Your task to perform on an android device: turn off translation in the chrome app Image 0: 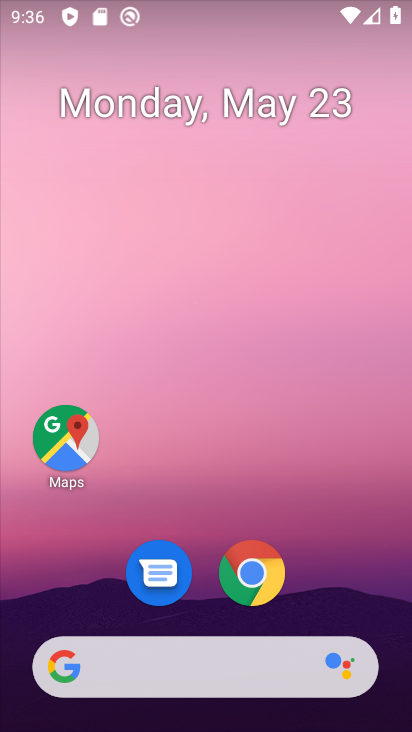
Step 0: click (270, 574)
Your task to perform on an android device: turn off translation in the chrome app Image 1: 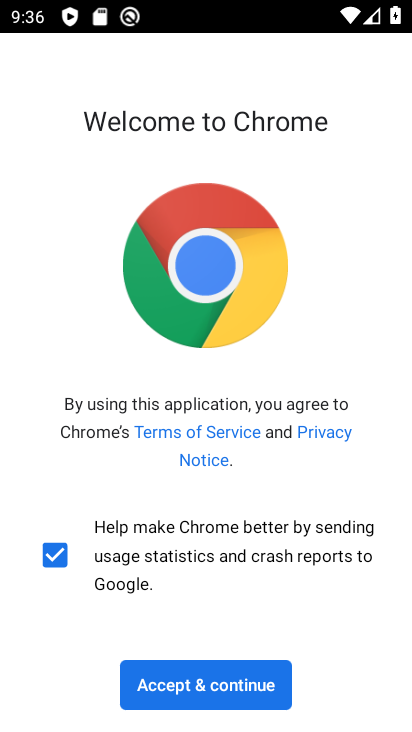
Step 1: click (221, 688)
Your task to perform on an android device: turn off translation in the chrome app Image 2: 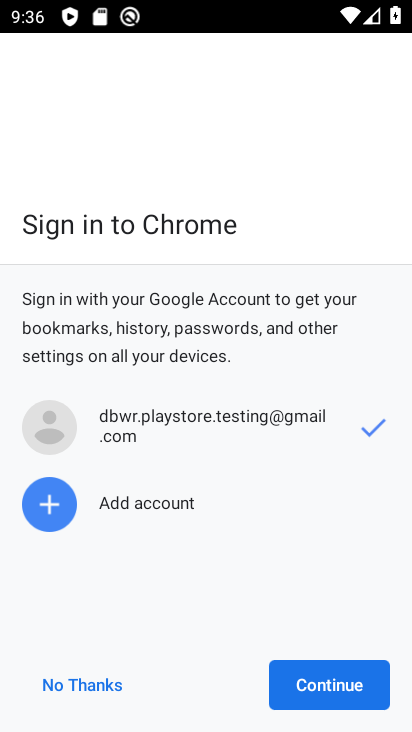
Step 2: click (339, 680)
Your task to perform on an android device: turn off translation in the chrome app Image 3: 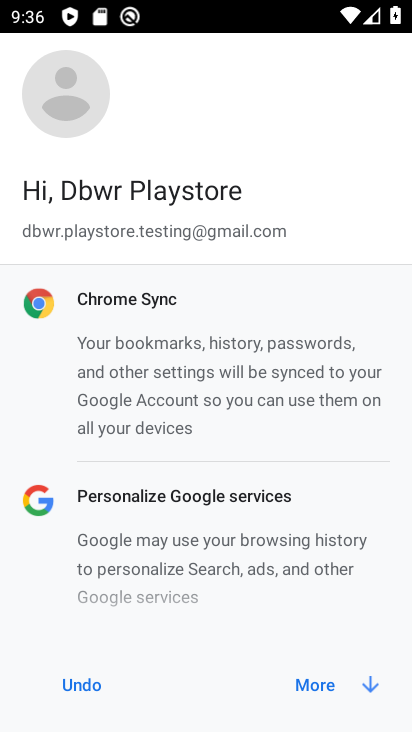
Step 3: click (304, 680)
Your task to perform on an android device: turn off translation in the chrome app Image 4: 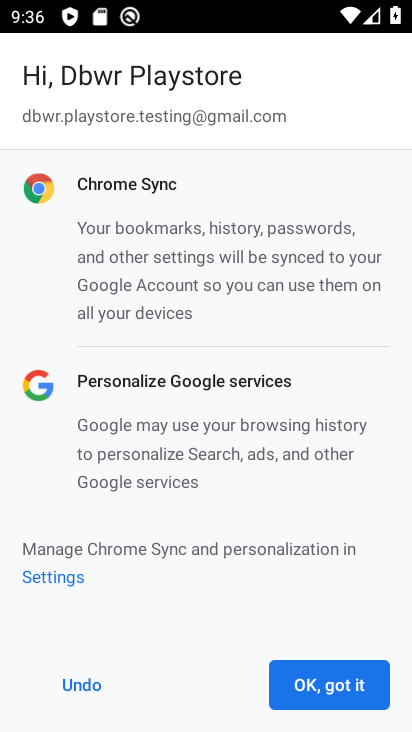
Step 4: click (313, 688)
Your task to perform on an android device: turn off translation in the chrome app Image 5: 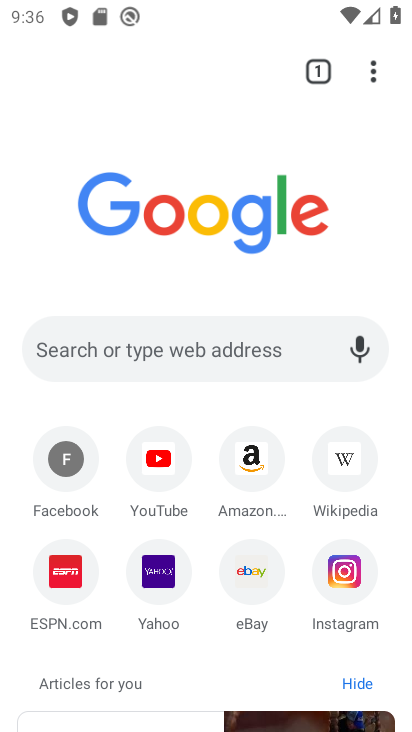
Step 5: click (372, 74)
Your task to perform on an android device: turn off translation in the chrome app Image 6: 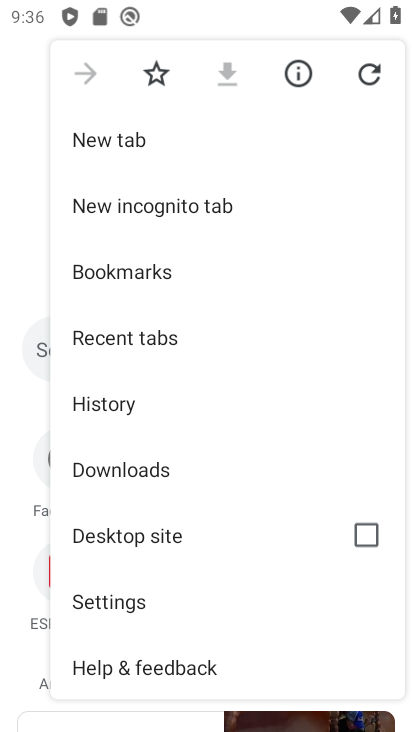
Step 6: click (129, 604)
Your task to perform on an android device: turn off translation in the chrome app Image 7: 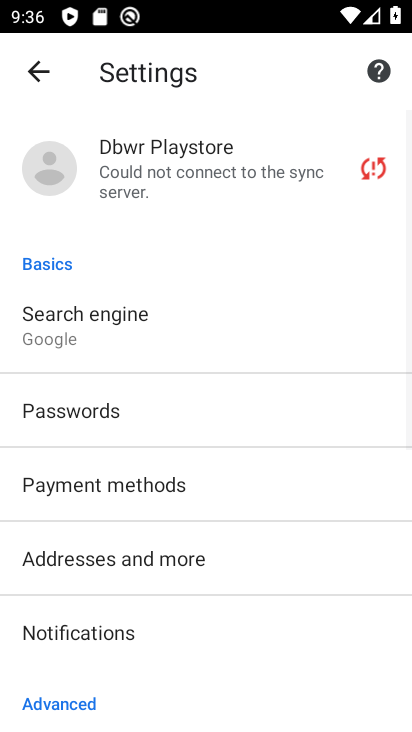
Step 7: drag from (140, 687) to (119, 302)
Your task to perform on an android device: turn off translation in the chrome app Image 8: 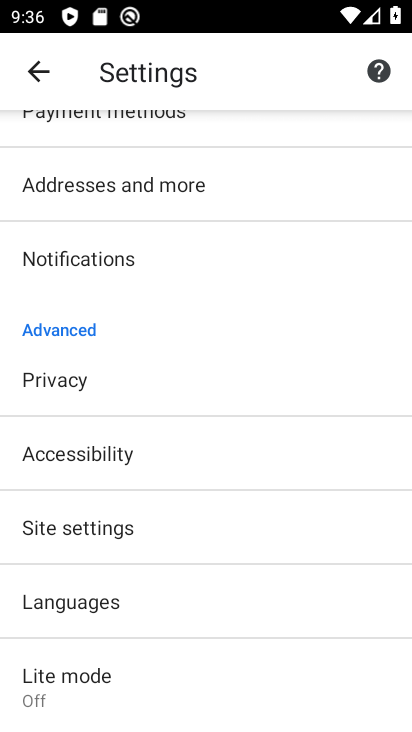
Step 8: click (101, 615)
Your task to perform on an android device: turn off translation in the chrome app Image 9: 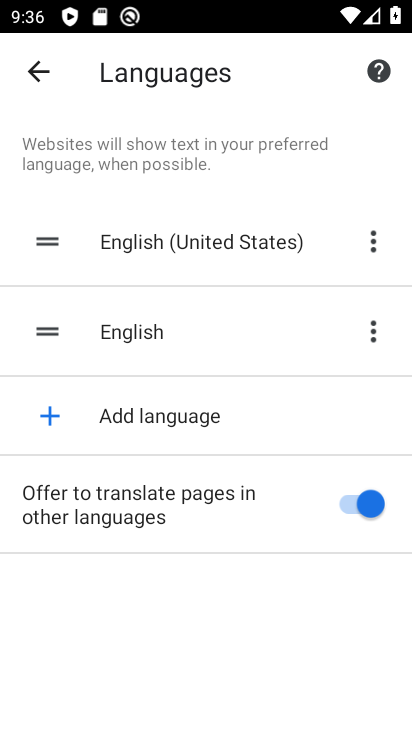
Step 9: click (353, 505)
Your task to perform on an android device: turn off translation in the chrome app Image 10: 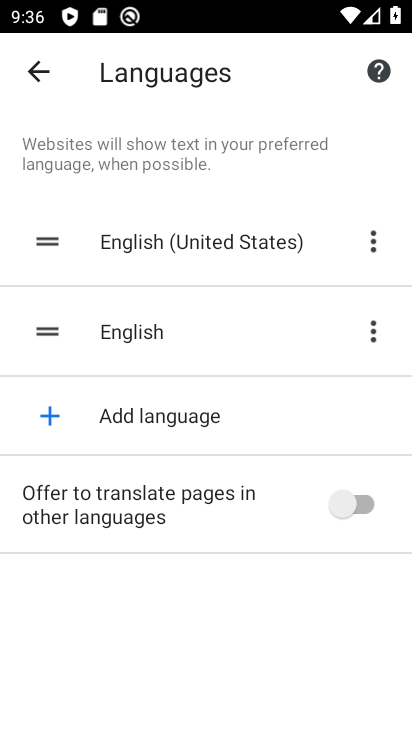
Step 10: task complete